Your task to perform on an android device: Go to Reddit.com Image 0: 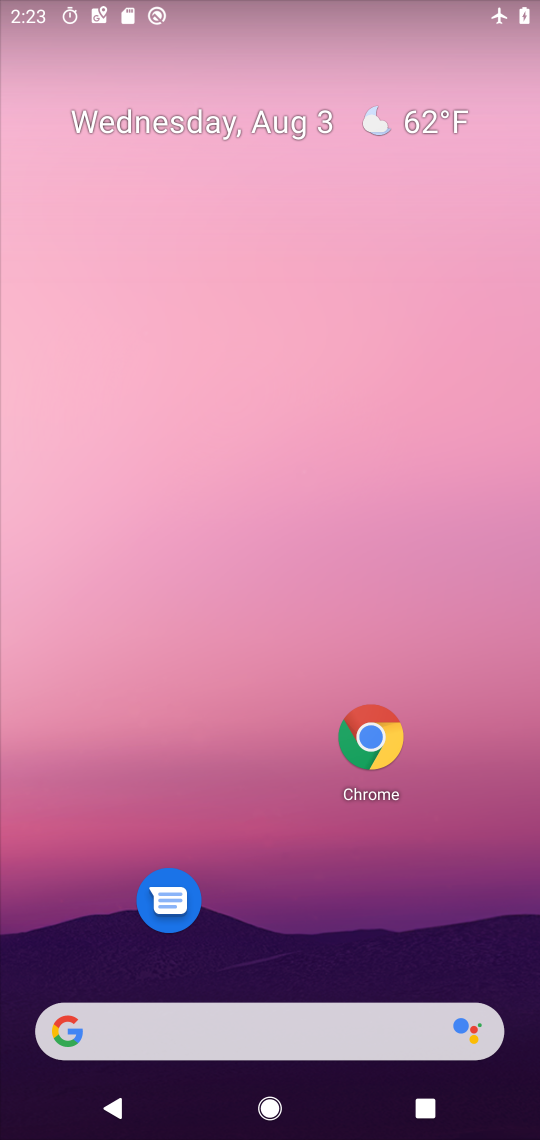
Step 0: drag from (267, 912) to (277, 7)
Your task to perform on an android device: Go to Reddit.com Image 1: 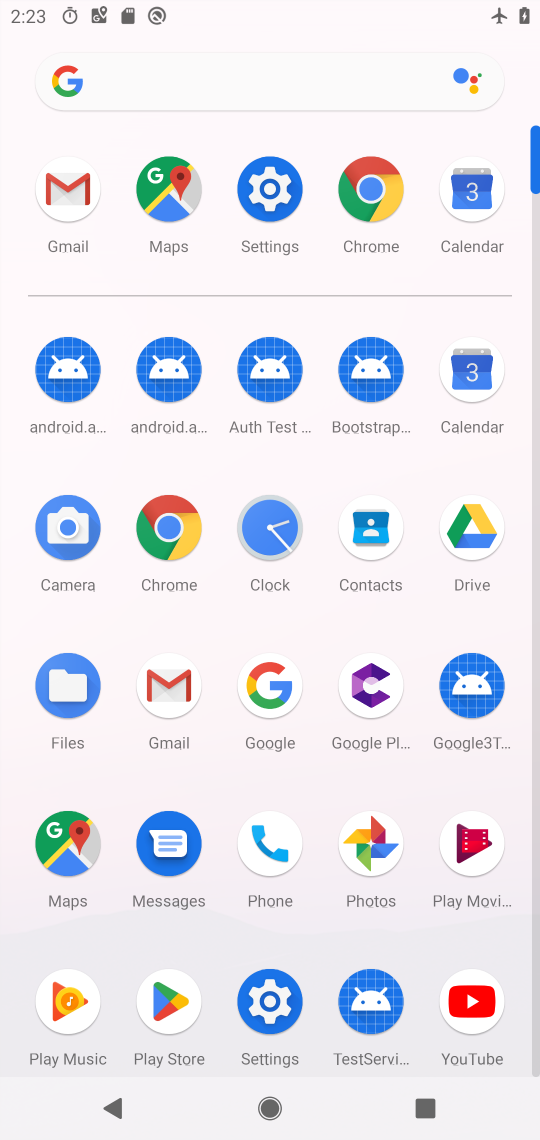
Step 1: click (171, 526)
Your task to perform on an android device: Go to Reddit.com Image 2: 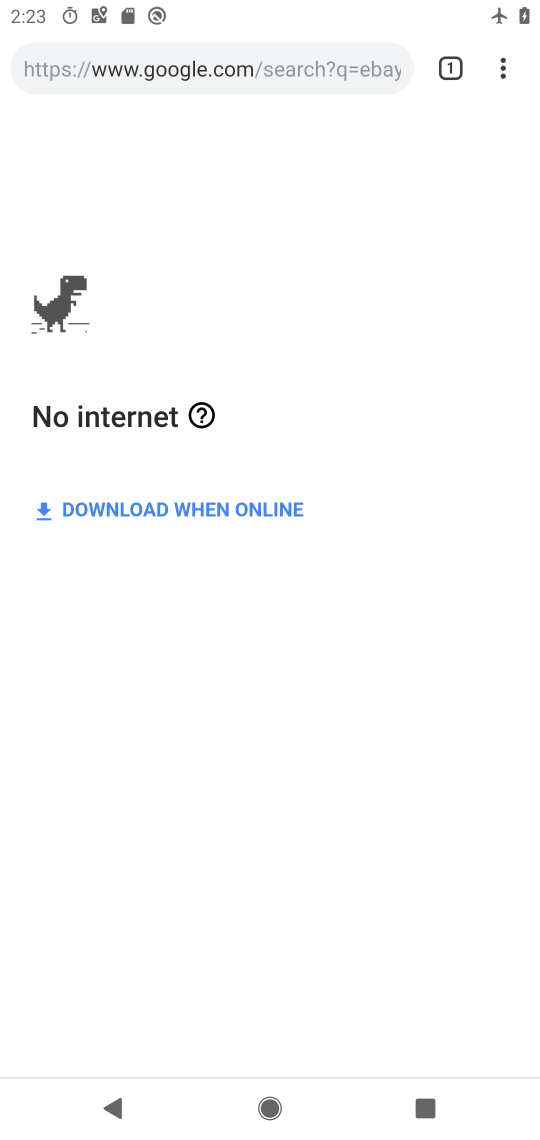
Step 2: click (283, 61)
Your task to perform on an android device: Go to Reddit.com Image 3: 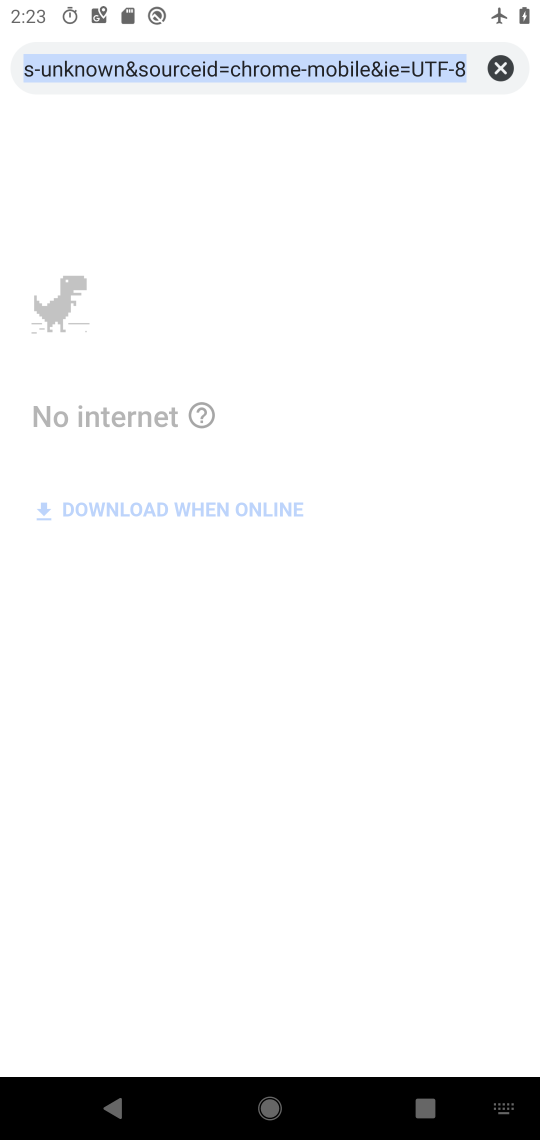
Step 3: type "reddit"
Your task to perform on an android device: Go to Reddit.com Image 4: 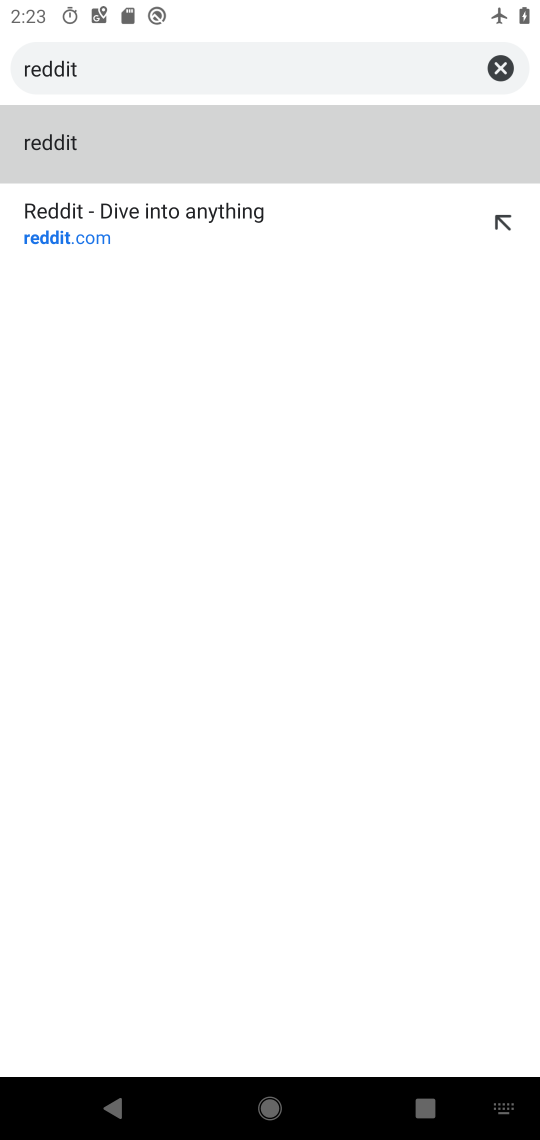
Step 4: click (122, 224)
Your task to perform on an android device: Go to Reddit.com Image 5: 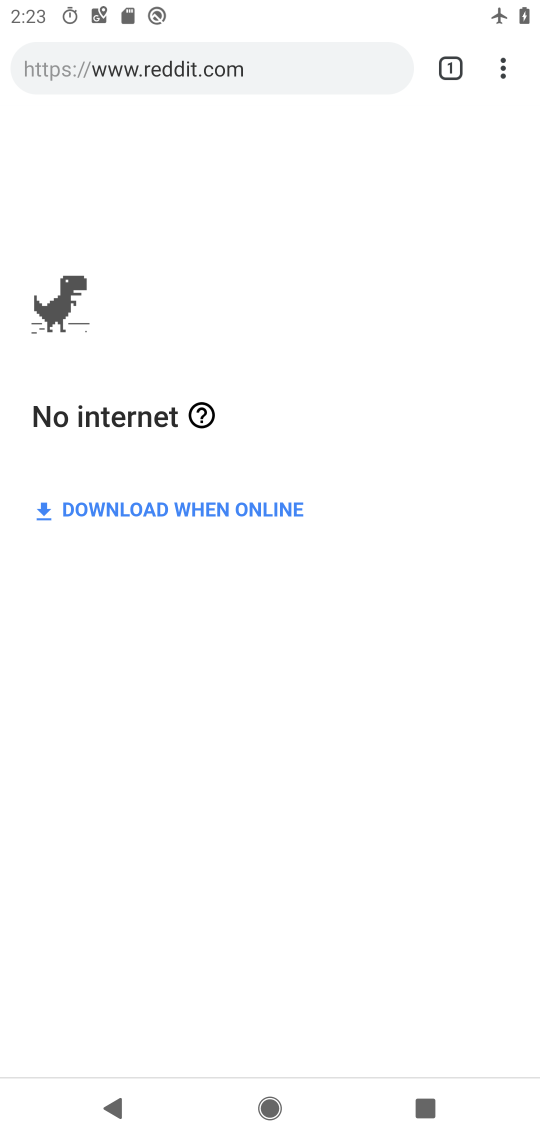
Step 5: task complete